Your task to perform on an android device: toggle location history Image 0: 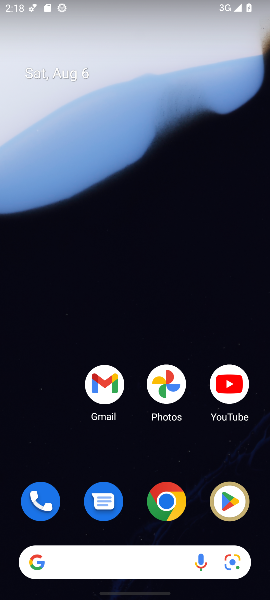
Step 0: press home button
Your task to perform on an android device: toggle location history Image 1: 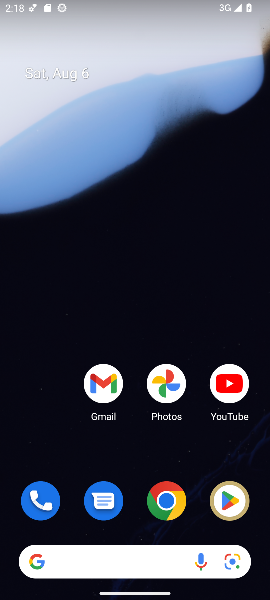
Step 1: drag from (140, 520) to (128, 0)
Your task to perform on an android device: toggle location history Image 2: 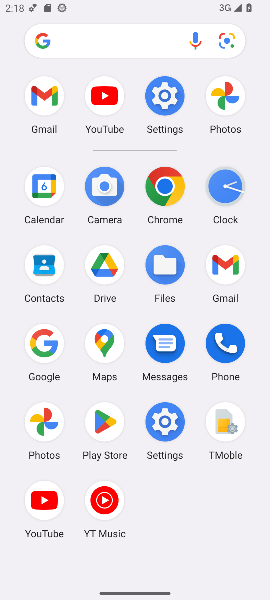
Step 2: click (163, 93)
Your task to perform on an android device: toggle location history Image 3: 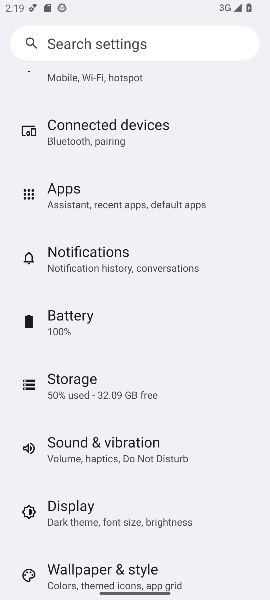
Step 3: drag from (195, 555) to (125, 283)
Your task to perform on an android device: toggle location history Image 4: 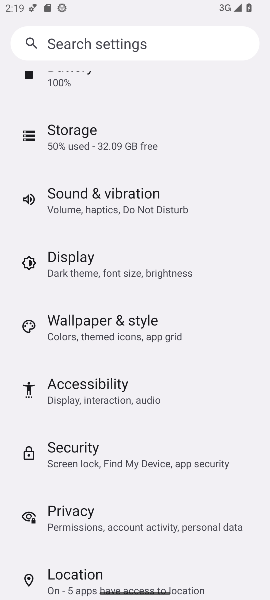
Step 4: click (84, 588)
Your task to perform on an android device: toggle location history Image 5: 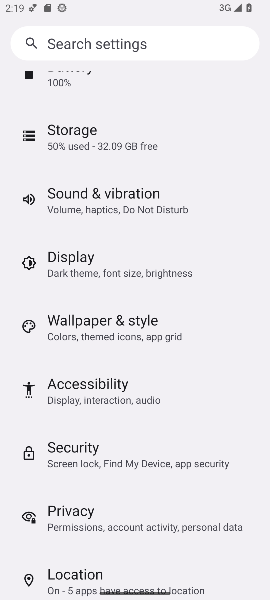
Step 5: click (66, 580)
Your task to perform on an android device: toggle location history Image 6: 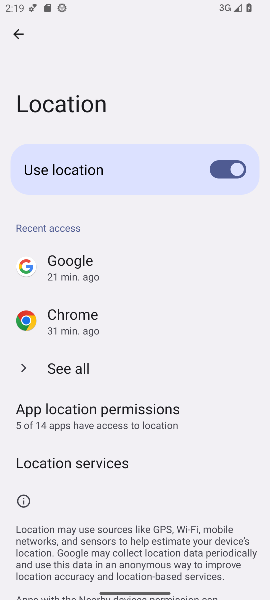
Step 6: click (84, 472)
Your task to perform on an android device: toggle location history Image 7: 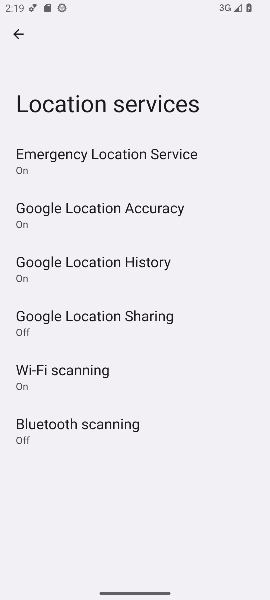
Step 7: click (122, 261)
Your task to perform on an android device: toggle location history Image 8: 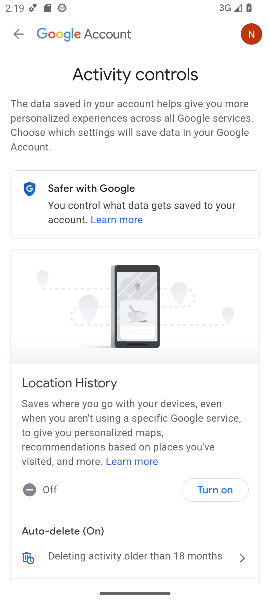
Step 8: task complete